Your task to perform on an android device: Go to accessibility settings Image 0: 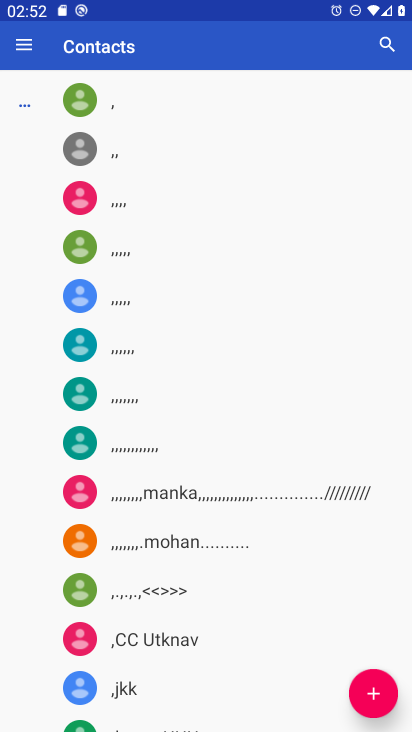
Step 0: press home button
Your task to perform on an android device: Go to accessibility settings Image 1: 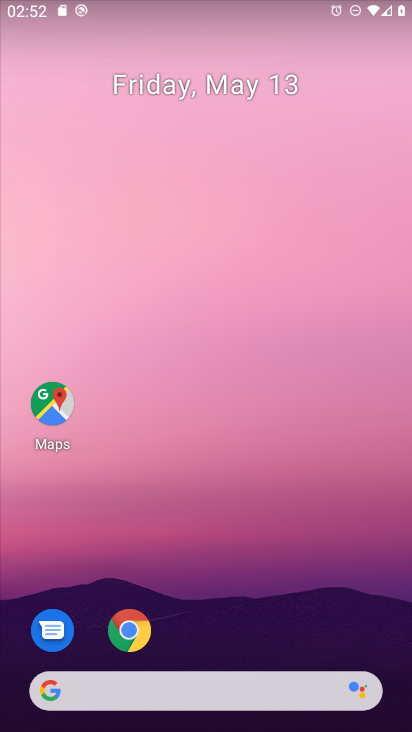
Step 1: drag from (214, 707) to (224, 253)
Your task to perform on an android device: Go to accessibility settings Image 2: 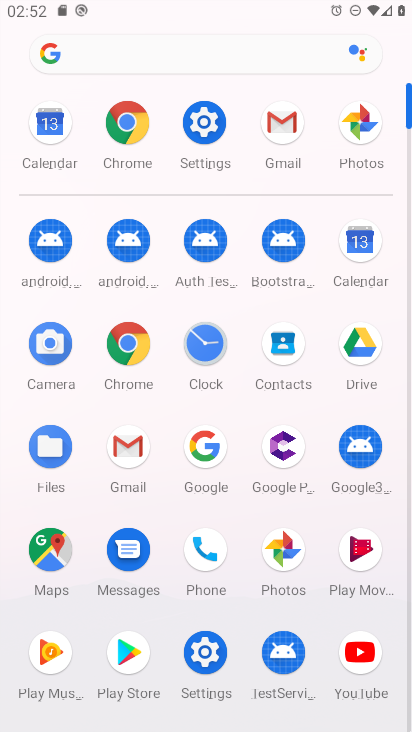
Step 2: click (217, 644)
Your task to perform on an android device: Go to accessibility settings Image 3: 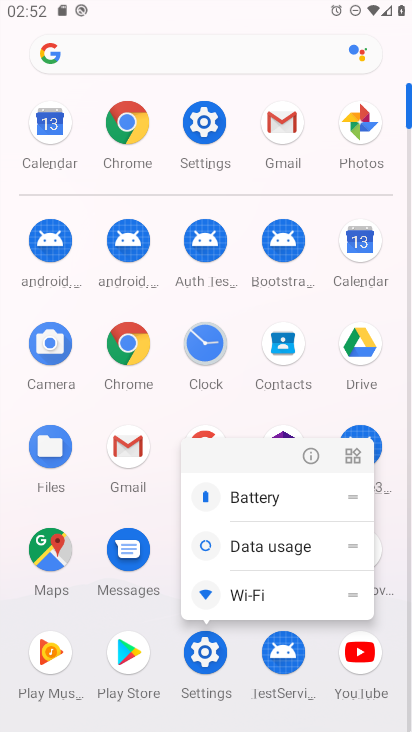
Step 3: click (197, 648)
Your task to perform on an android device: Go to accessibility settings Image 4: 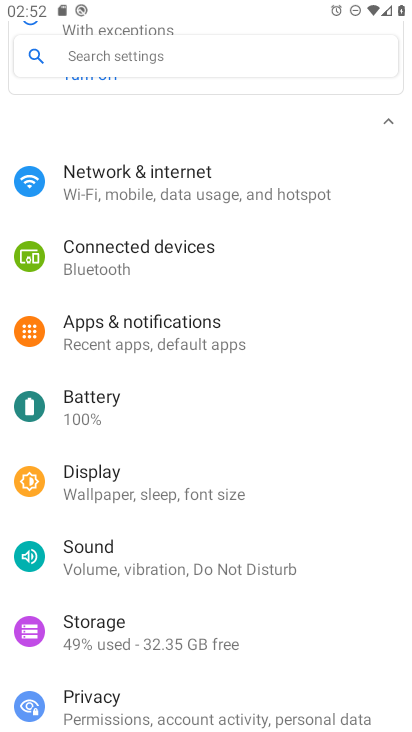
Step 4: click (165, 58)
Your task to perform on an android device: Go to accessibility settings Image 5: 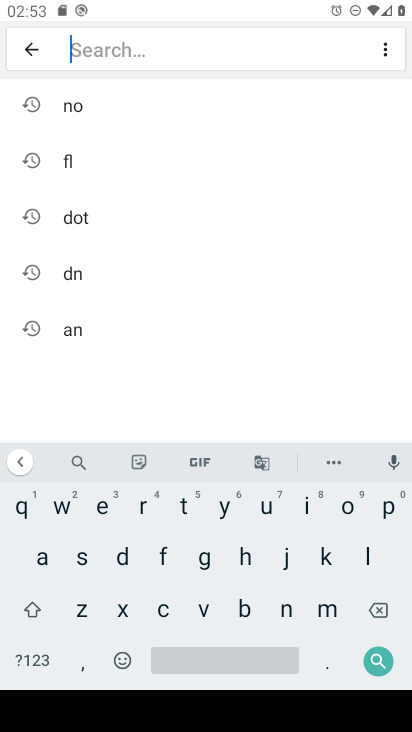
Step 5: click (38, 551)
Your task to perform on an android device: Go to accessibility settings Image 6: 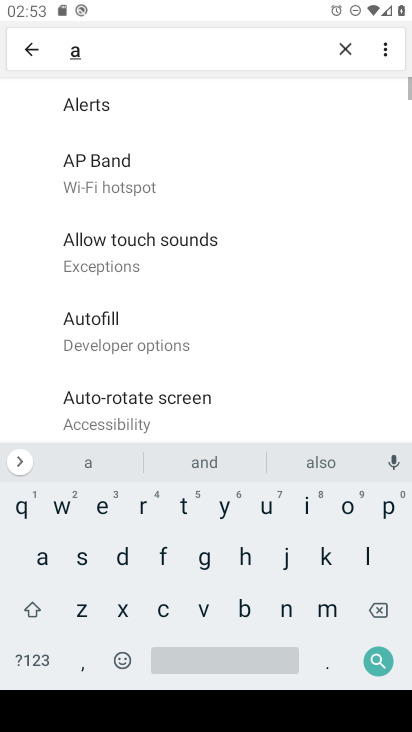
Step 6: click (168, 608)
Your task to perform on an android device: Go to accessibility settings Image 7: 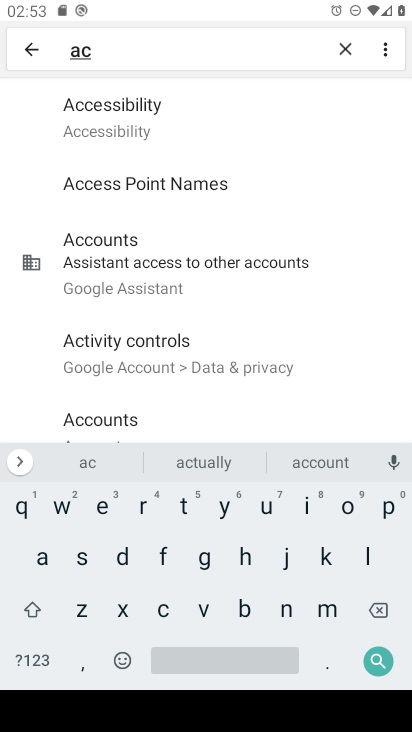
Step 7: click (176, 132)
Your task to perform on an android device: Go to accessibility settings Image 8: 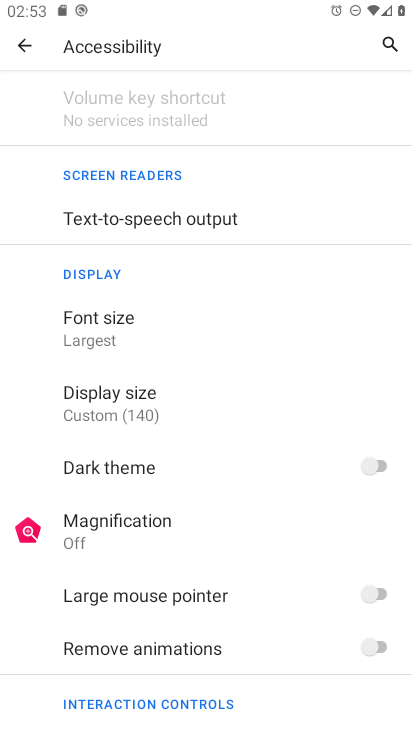
Step 8: task complete